Your task to perform on an android device: When is my next meeting? Image 0: 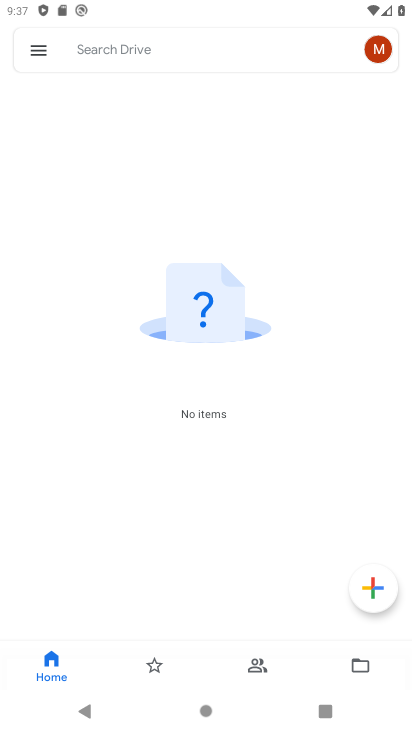
Step 0: press back button
Your task to perform on an android device: When is my next meeting? Image 1: 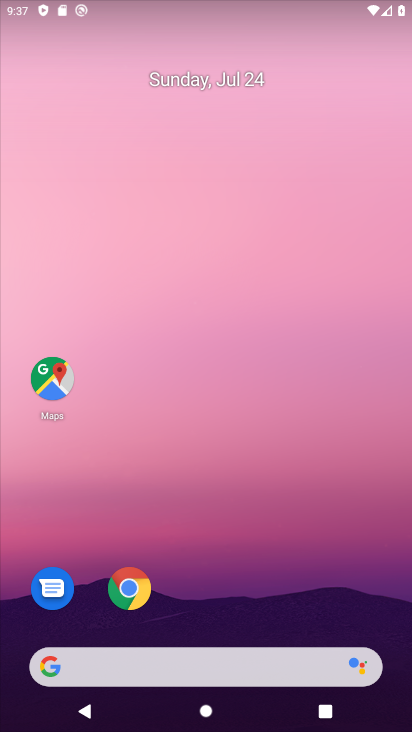
Step 1: drag from (234, 633) to (165, 194)
Your task to perform on an android device: When is my next meeting? Image 2: 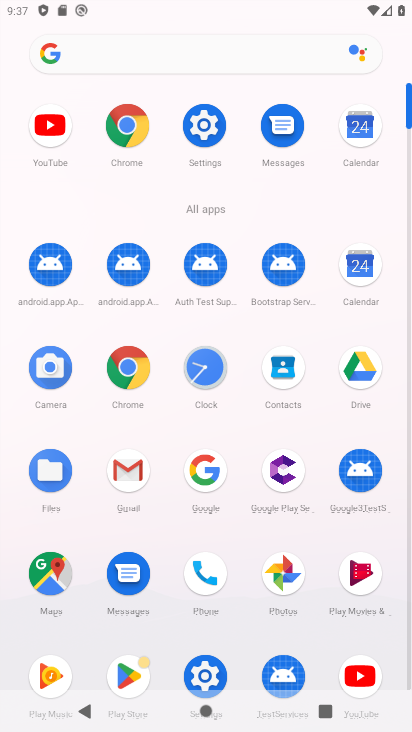
Step 2: click (362, 273)
Your task to perform on an android device: When is my next meeting? Image 3: 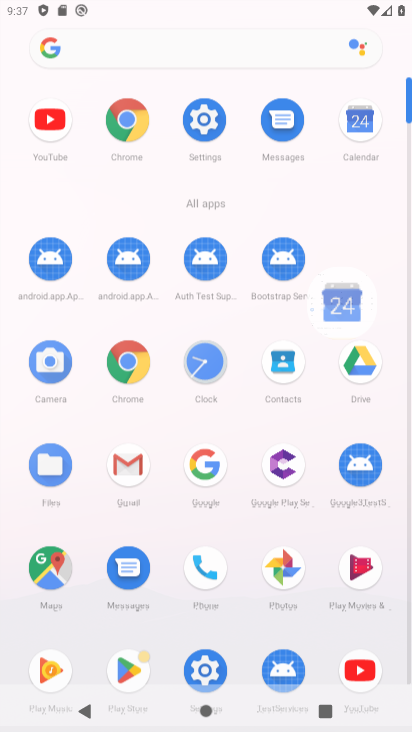
Step 3: click (361, 272)
Your task to perform on an android device: When is my next meeting? Image 4: 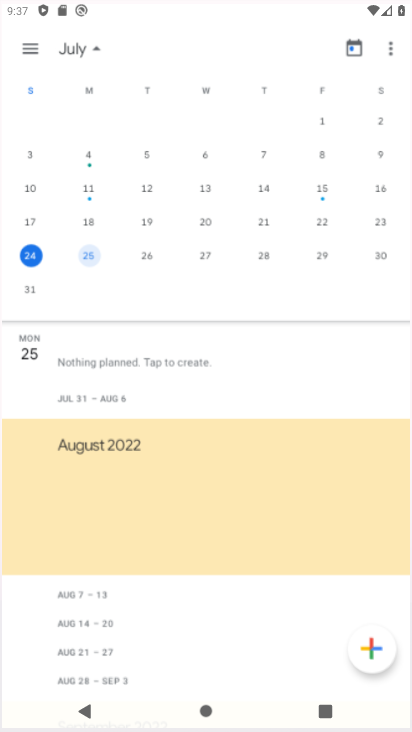
Step 4: click (363, 275)
Your task to perform on an android device: When is my next meeting? Image 5: 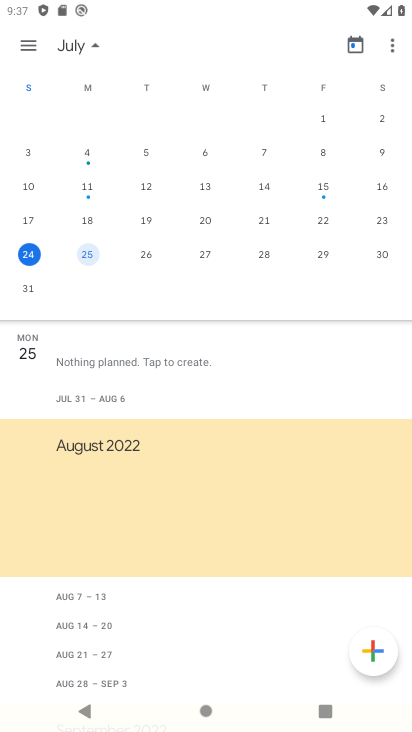
Step 5: click (83, 243)
Your task to perform on an android device: When is my next meeting? Image 6: 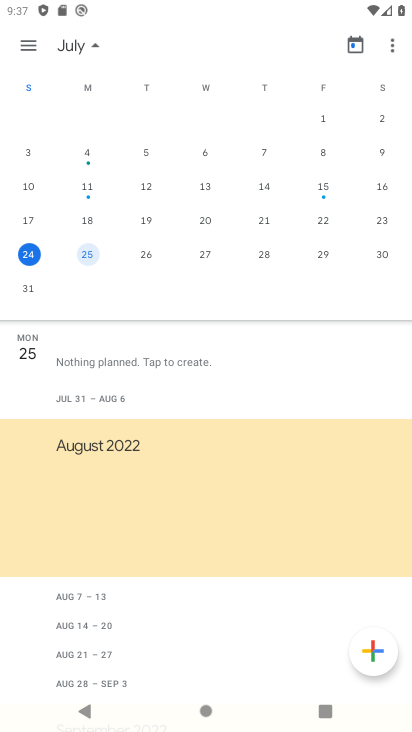
Step 6: click (85, 246)
Your task to perform on an android device: When is my next meeting? Image 7: 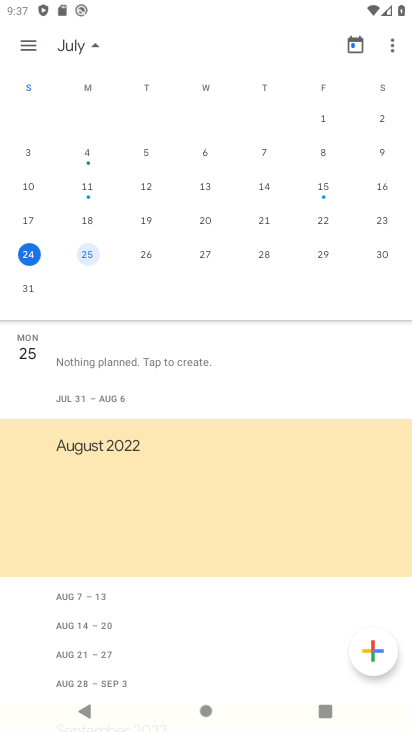
Step 7: task complete